Your task to perform on an android device: Go to privacy settings Image 0: 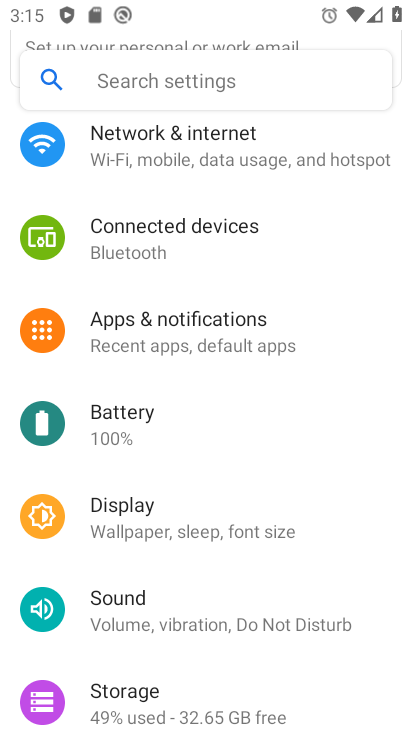
Step 0: drag from (309, 537) to (303, 463)
Your task to perform on an android device: Go to privacy settings Image 1: 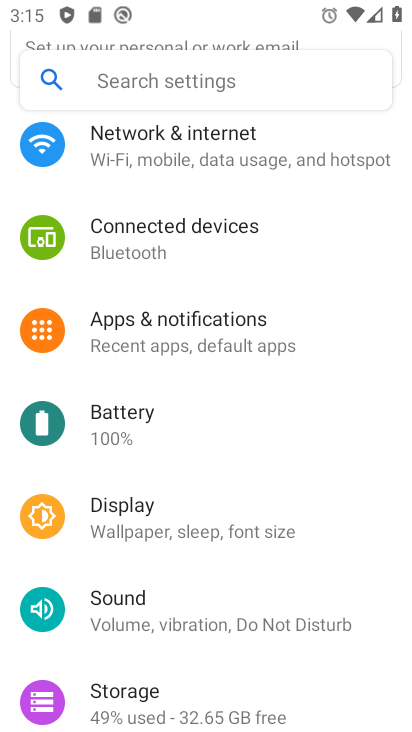
Step 1: drag from (383, 657) to (342, 431)
Your task to perform on an android device: Go to privacy settings Image 2: 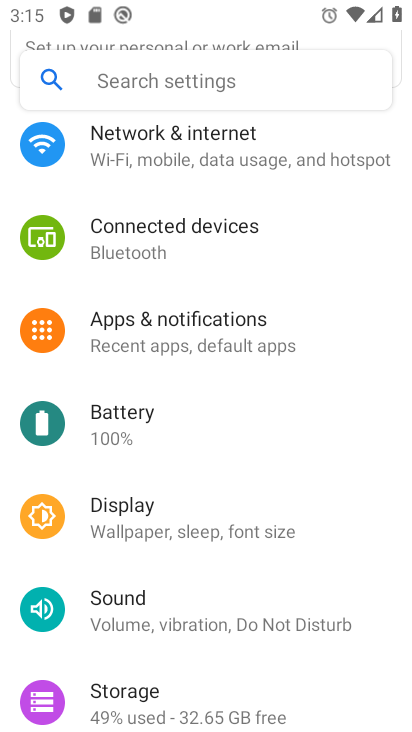
Step 2: press home button
Your task to perform on an android device: Go to privacy settings Image 3: 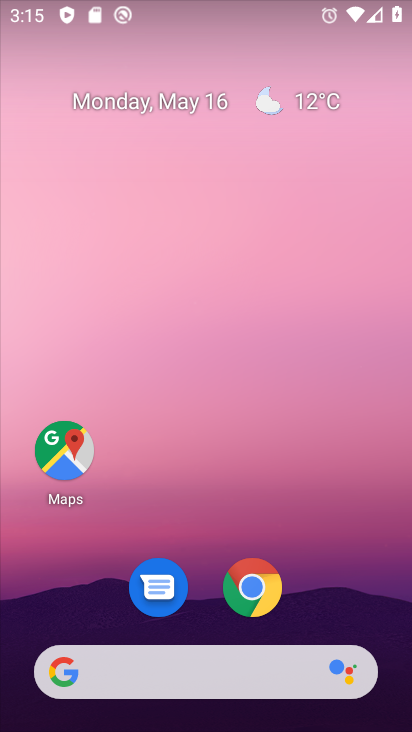
Step 3: click (248, 581)
Your task to perform on an android device: Go to privacy settings Image 4: 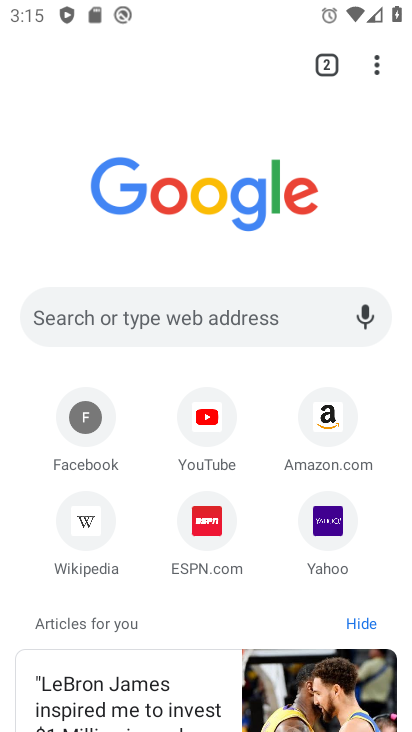
Step 4: click (372, 68)
Your task to perform on an android device: Go to privacy settings Image 5: 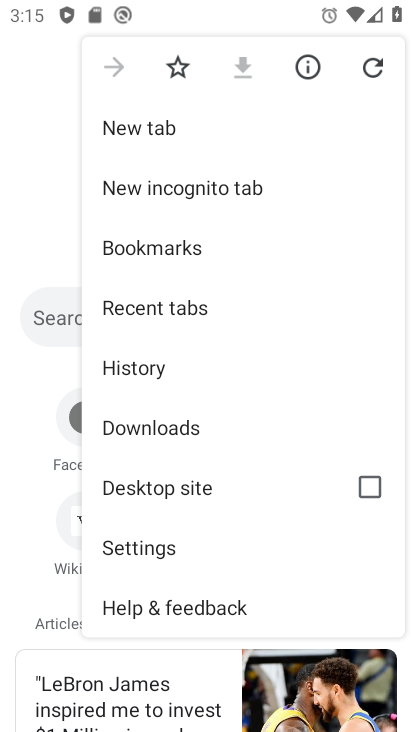
Step 5: click (160, 539)
Your task to perform on an android device: Go to privacy settings Image 6: 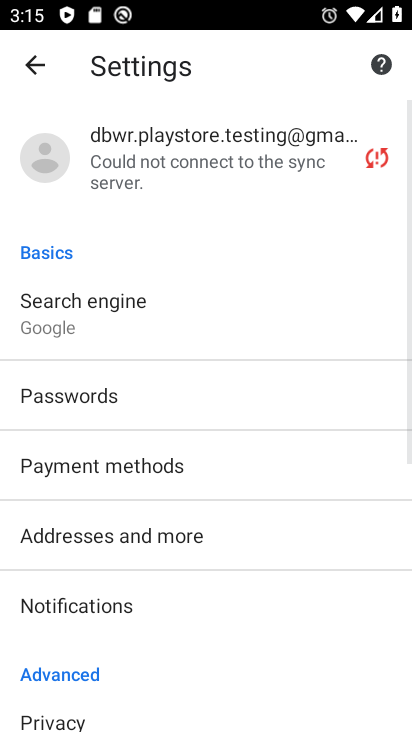
Step 6: drag from (283, 687) to (272, 450)
Your task to perform on an android device: Go to privacy settings Image 7: 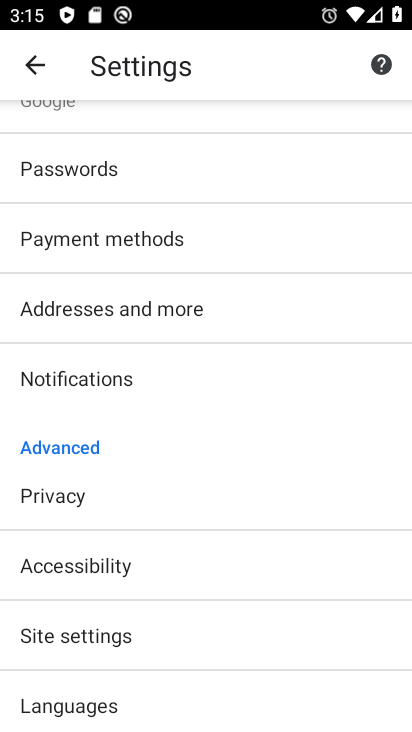
Step 7: click (53, 487)
Your task to perform on an android device: Go to privacy settings Image 8: 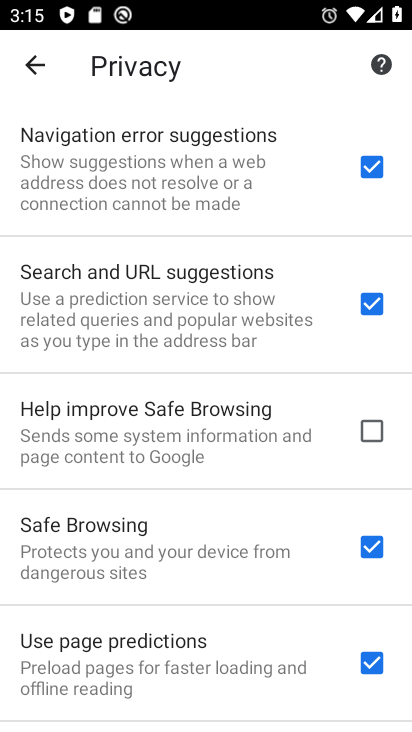
Step 8: task complete